Your task to perform on an android device: Open Chrome and go to the settings page Image 0: 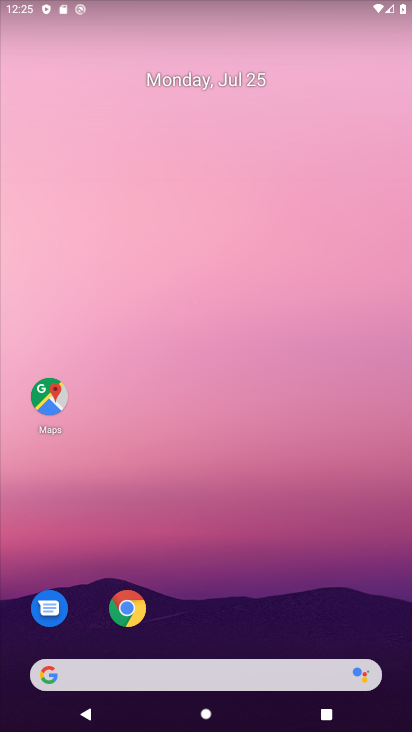
Step 0: drag from (279, 588) to (258, 4)
Your task to perform on an android device: Open Chrome and go to the settings page Image 1: 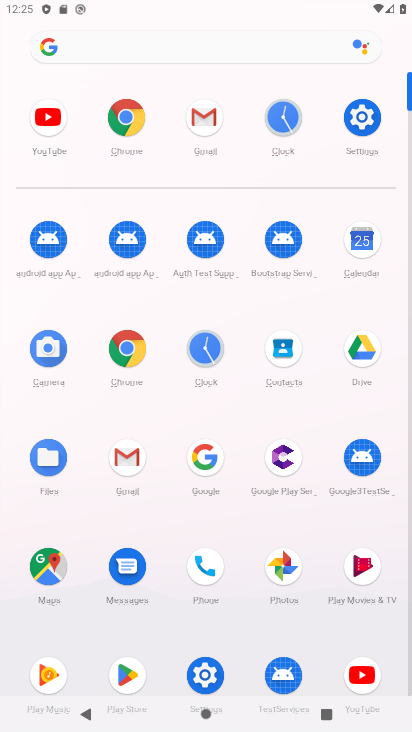
Step 1: click (133, 355)
Your task to perform on an android device: Open Chrome and go to the settings page Image 2: 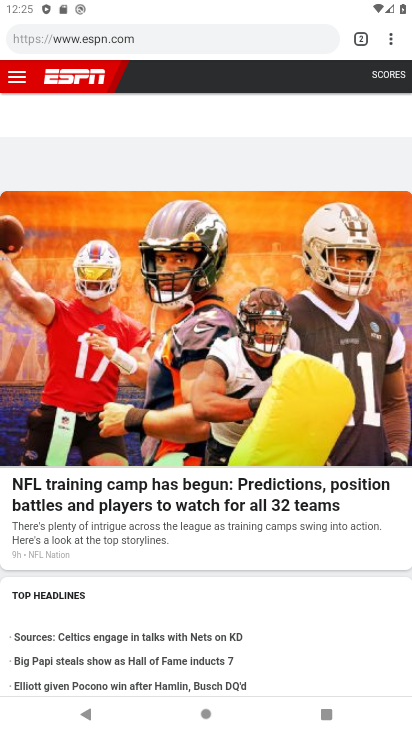
Step 2: click (386, 42)
Your task to perform on an android device: Open Chrome and go to the settings page Image 3: 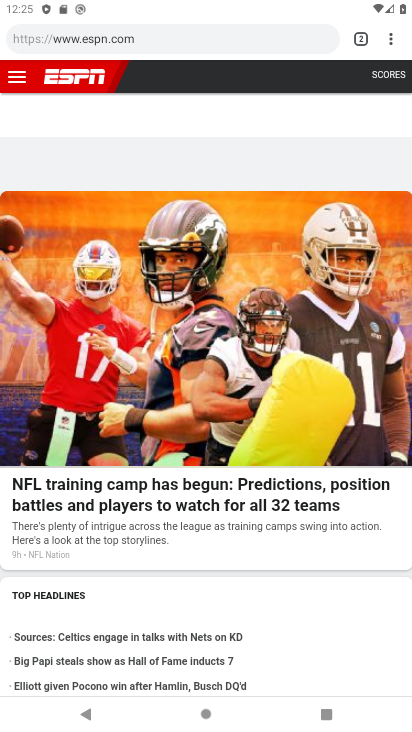
Step 3: click (398, 39)
Your task to perform on an android device: Open Chrome and go to the settings page Image 4: 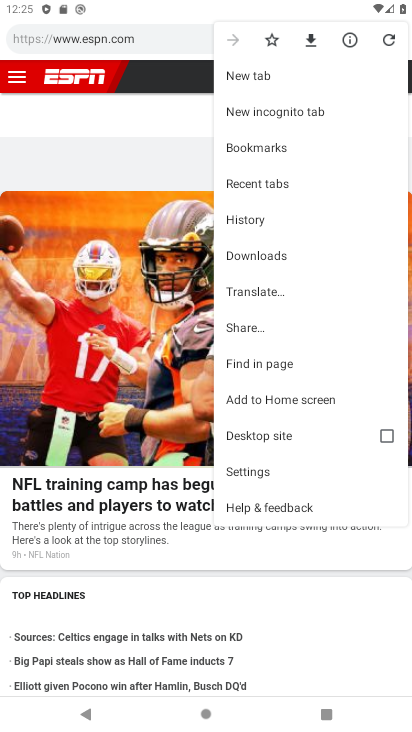
Step 4: click (278, 465)
Your task to perform on an android device: Open Chrome and go to the settings page Image 5: 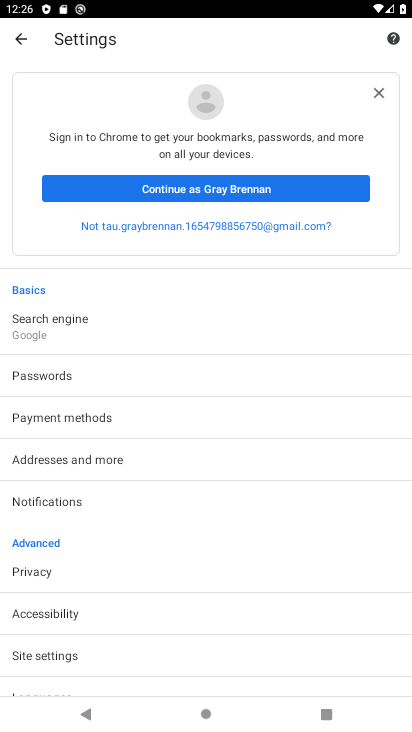
Step 5: click (379, 200)
Your task to perform on an android device: Open Chrome and go to the settings page Image 6: 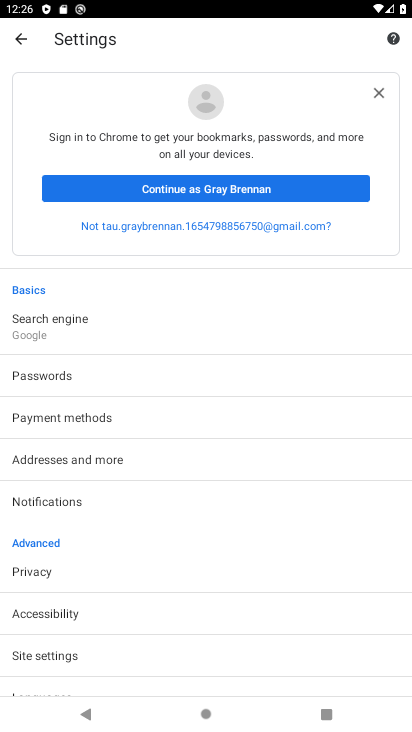
Step 6: task complete